Your task to perform on an android device: change notification settings in the gmail app Image 0: 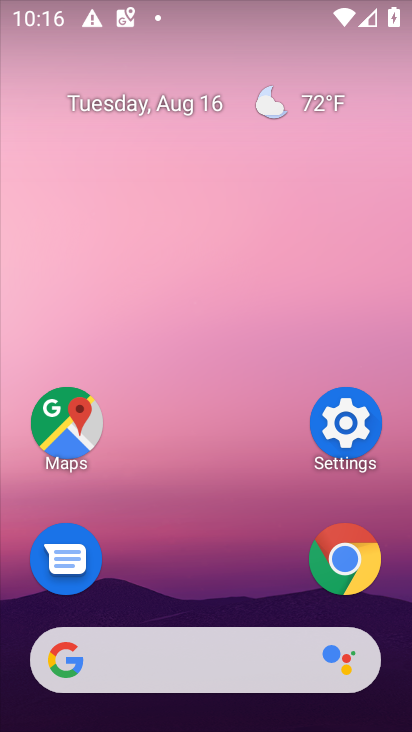
Step 0: drag from (192, 571) to (314, 113)
Your task to perform on an android device: change notification settings in the gmail app Image 1: 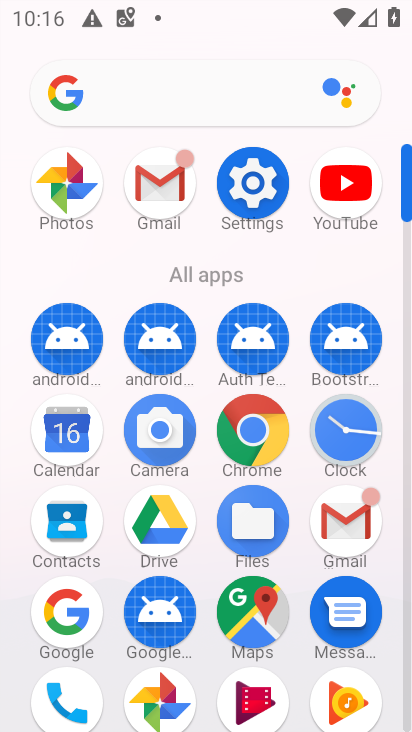
Step 1: click (159, 193)
Your task to perform on an android device: change notification settings in the gmail app Image 2: 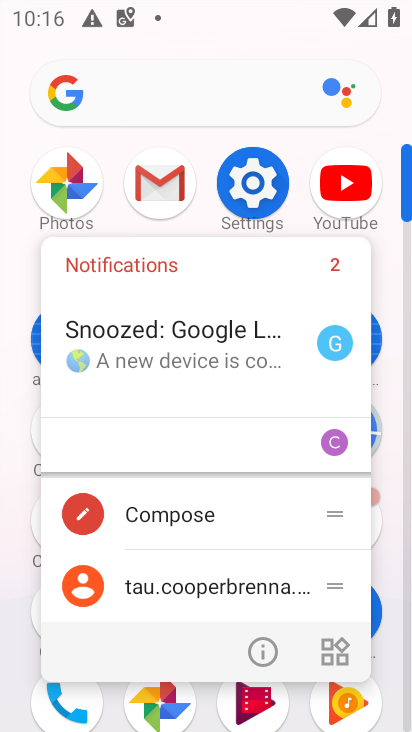
Step 2: click (158, 193)
Your task to perform on an android device: change notification settings in the gmail app Image 3: 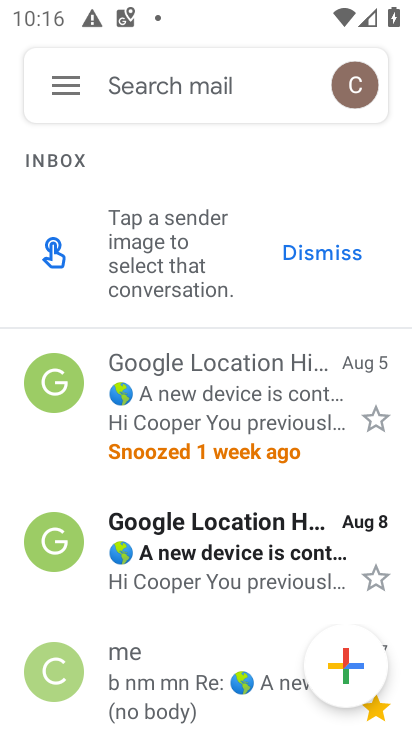
Step 3: click (65, 86)
Your task to perform on an android device: change notification settings in the gmail app Image 4: 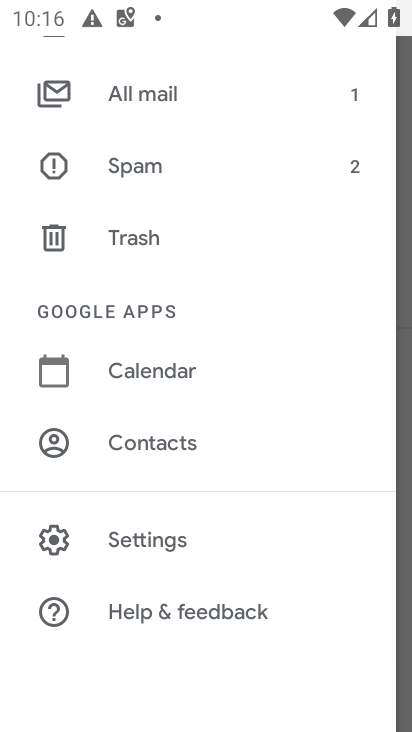
Step 4: click (147, 537)
Your task to perform on an android device: change notification settings in the gmail app Image 5: 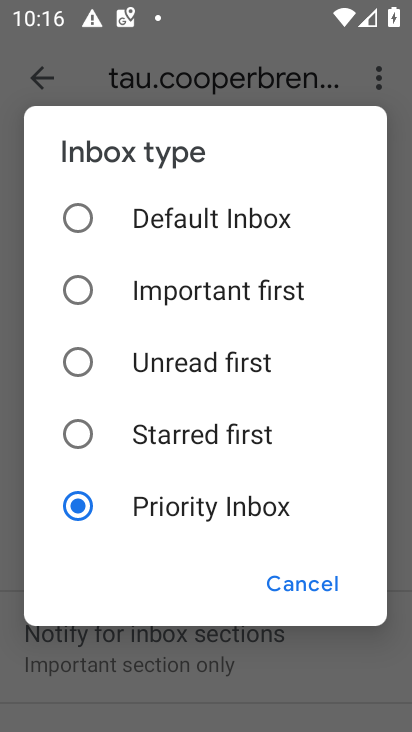
Step 5: click (301, 590)
Your task to perform on an android device: change notification settings in the gmail app Image 6: 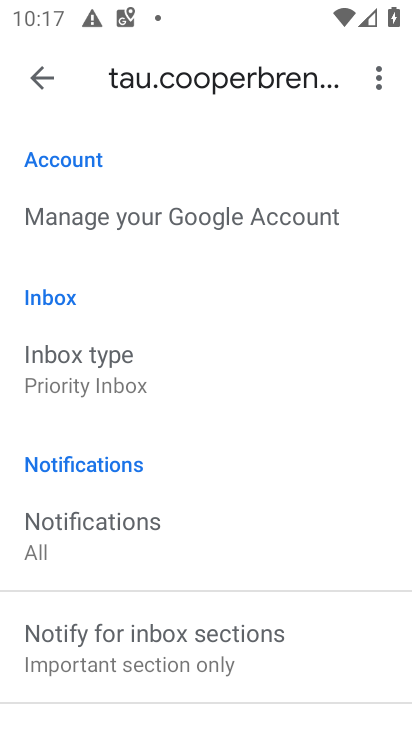
Step 6: click (103, 530)
Your task to perform on an android device: change notification settings in the gmail app Image 7: 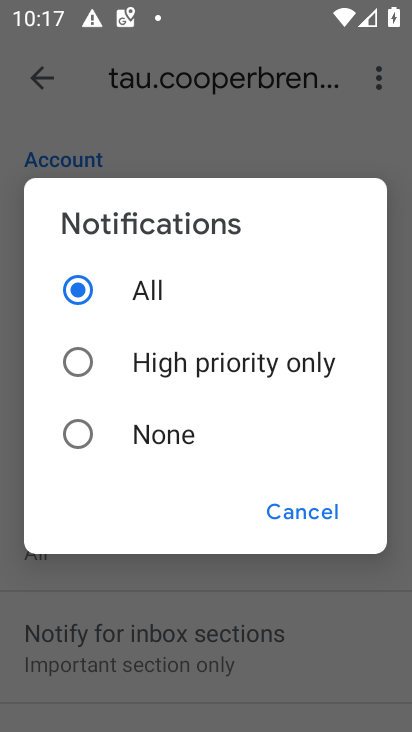
Step 7: click (85, 423)
Your task to perform on an android device: change notification settings in the gmail app Image 8: 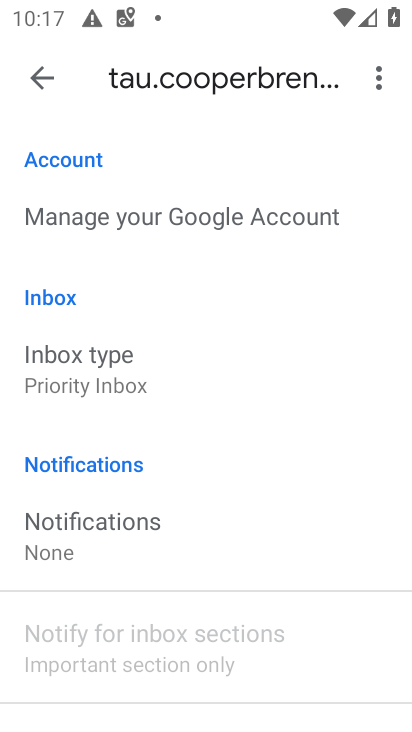
Step 8: task complete